Your task to perform on an android device: What's the weather today? Image 0: 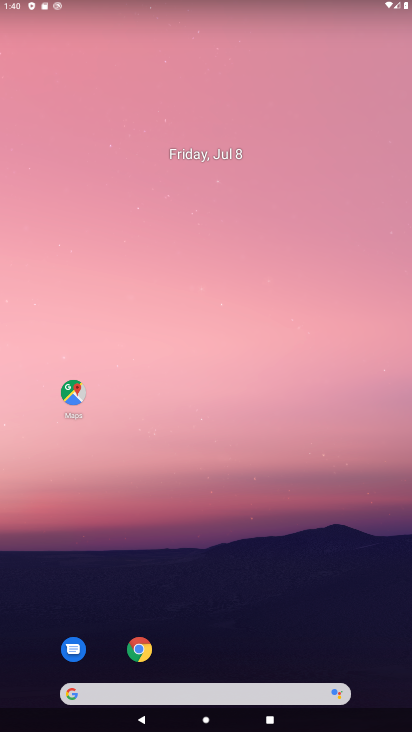
Step 0: drag from (303, 633) to (202, 101)
Your task to perform on an android device: What's the weather today? Image 1: 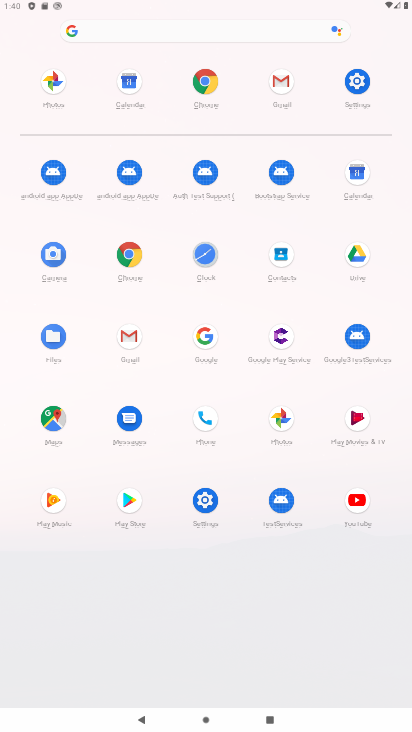
Step 1: click (134, 258)
Your task to perform on an android device: What's the weather today? Image 2: 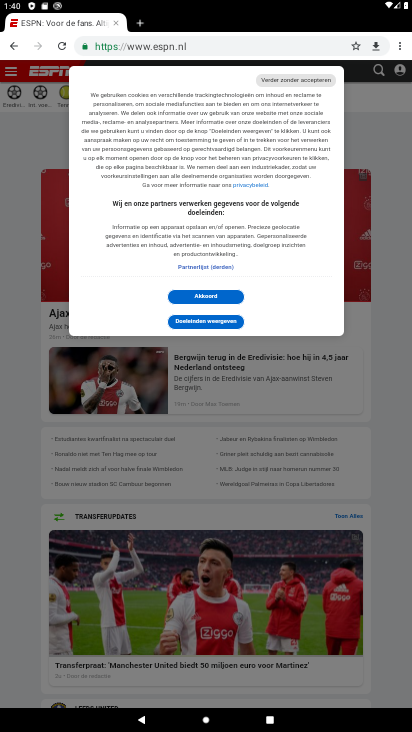
Step 2: click (229, 40)
Your task to perform on an android device: What's the weather today? Image 3: 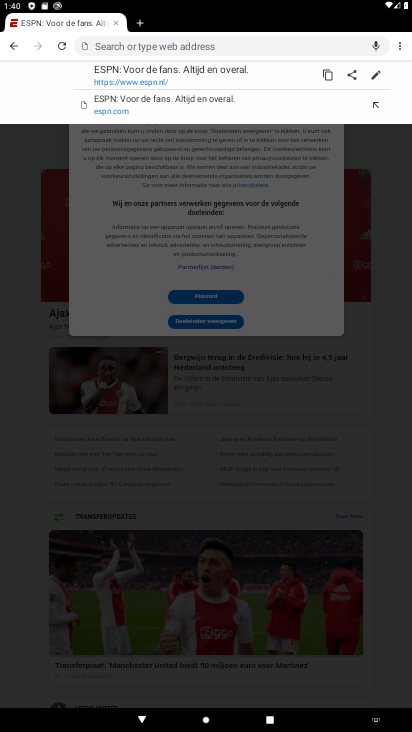
Step 3: type "weather"
Your task to perform on an android device: What's the weather today? Image 4: 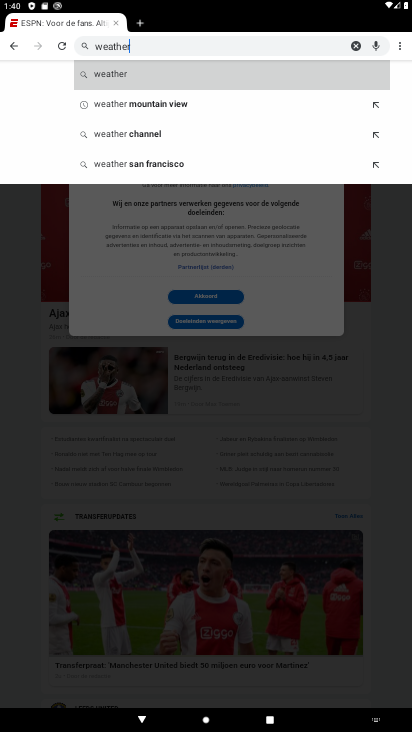
Step 4: click (124, 71)
Your task to perform on an android device: What's the weather today? Image 5: 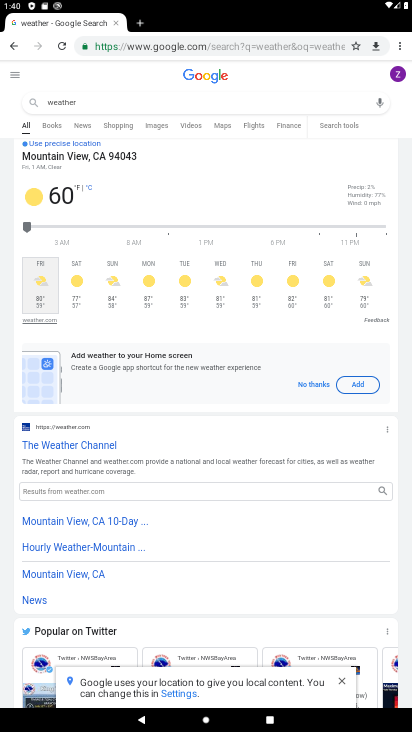
Step 5: task complete